Your task to perform on an android device: Add razer nari to the cart on walmart.com Image 0: 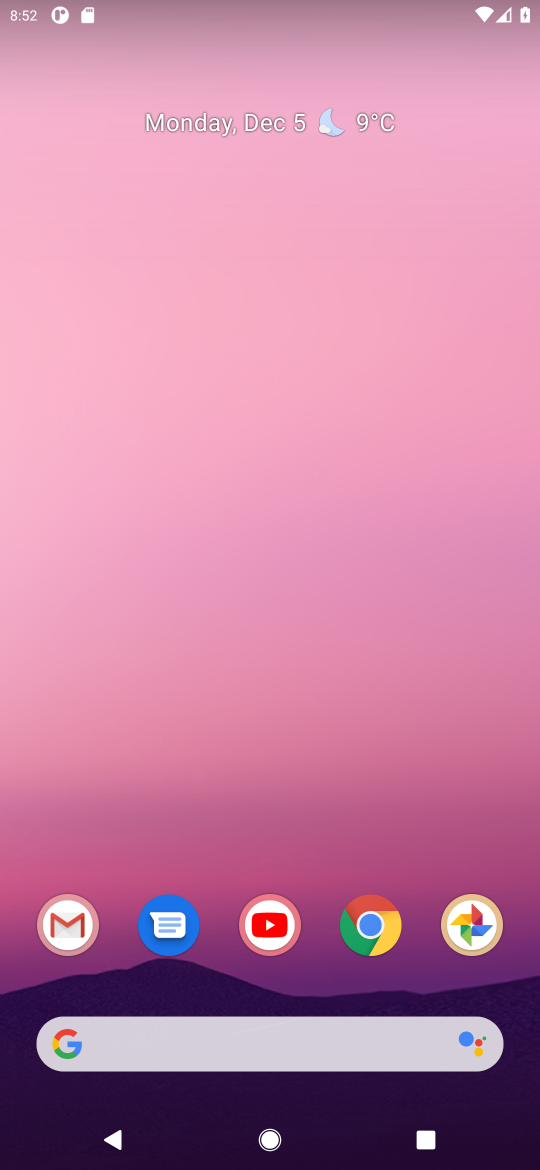
Step 0: click (372, 929)
Your task to perform on an android device: Add razer nari to the cart on walmart.com Image 1: 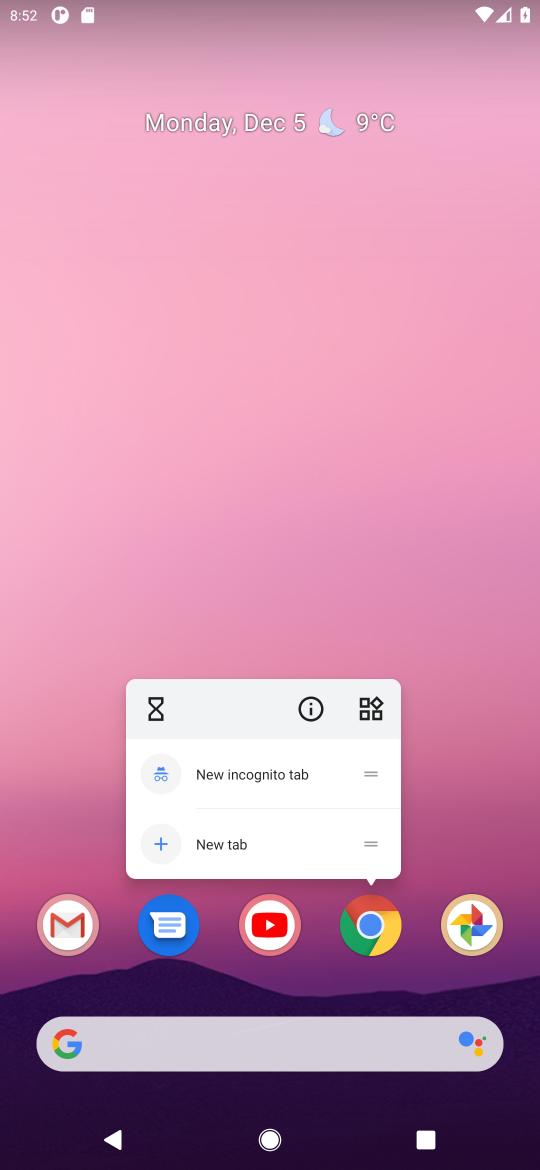
Step 1: click (372, 929)
Your task to perform on an android device: Add razer nari to the cart on walmart.com Image 2: 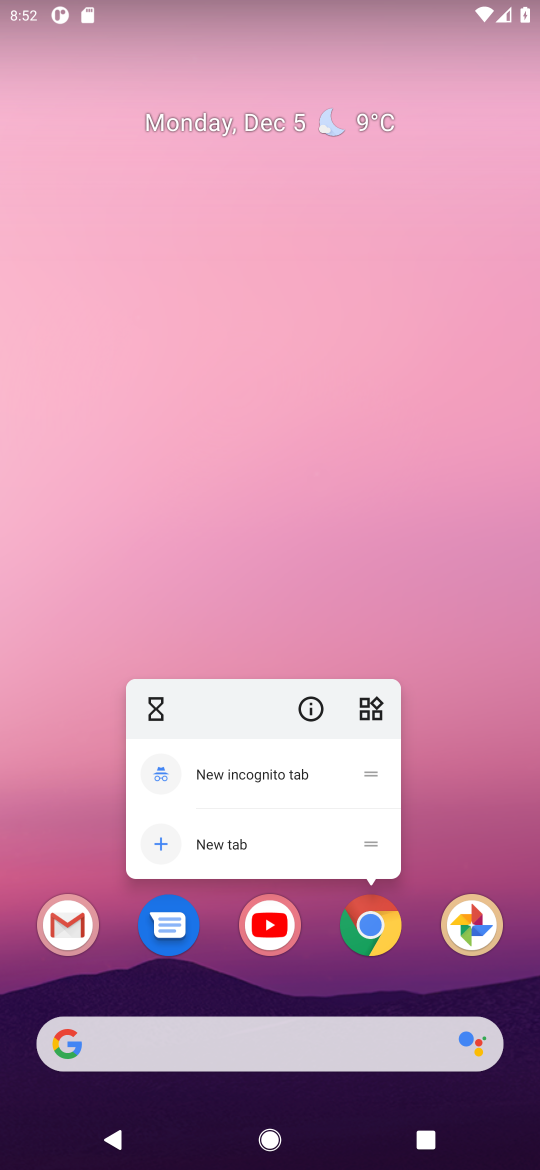
Step 2: click (372, 929)
Your task to perform on an android device: Add razer nari to the cart on walmart.com Image 3: 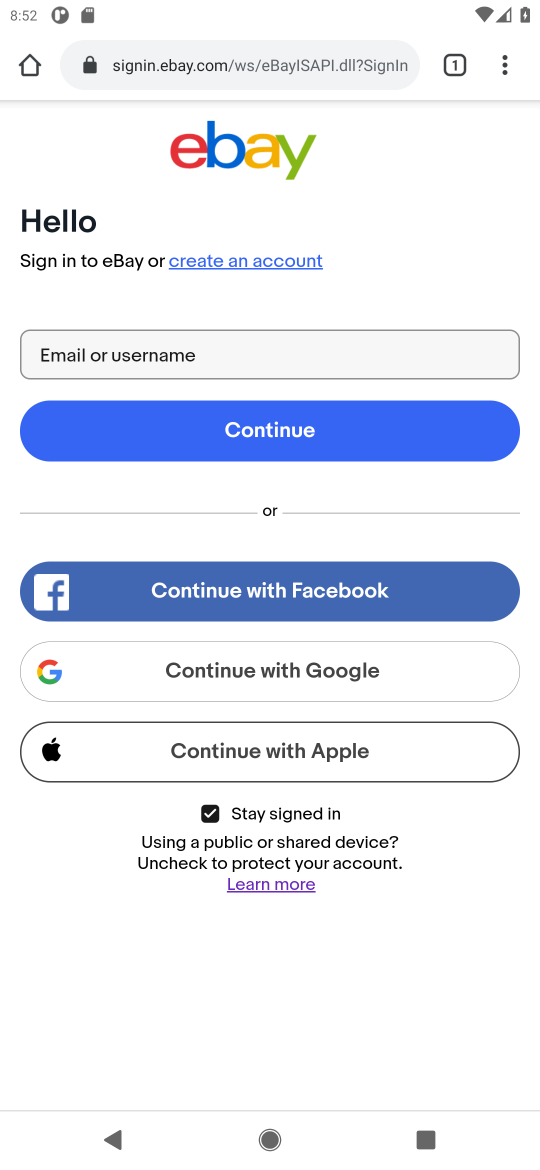
Step 3: click (243, 58)
Your task to perform on an android device: Add razer nari to the cart on walmart.com Image 4: 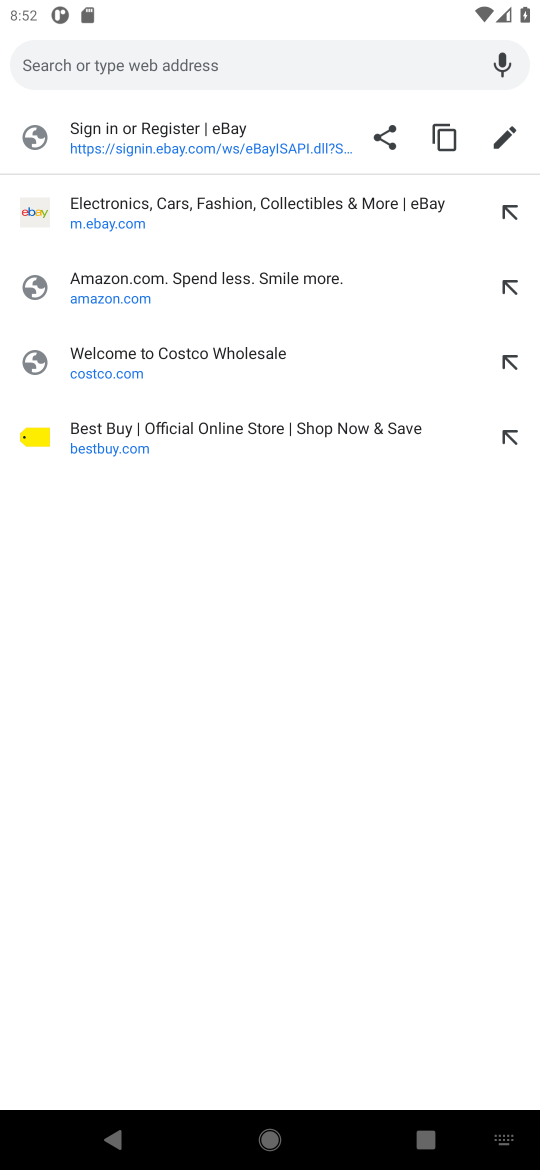
Step 4: type "walmart.com"
Your task to perform on an android device: Add razer nari to the cart on walmart.com Image 5: 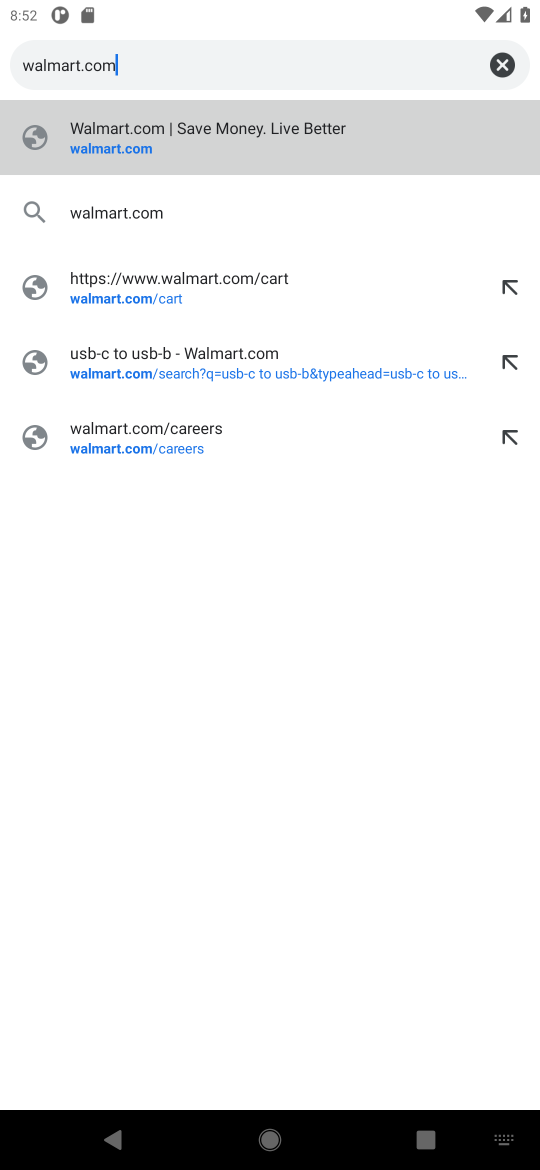
Step 5: click (107, 152)
Your task to perform on an android device: Add razer nari to the cart on walmart.com Image 6: 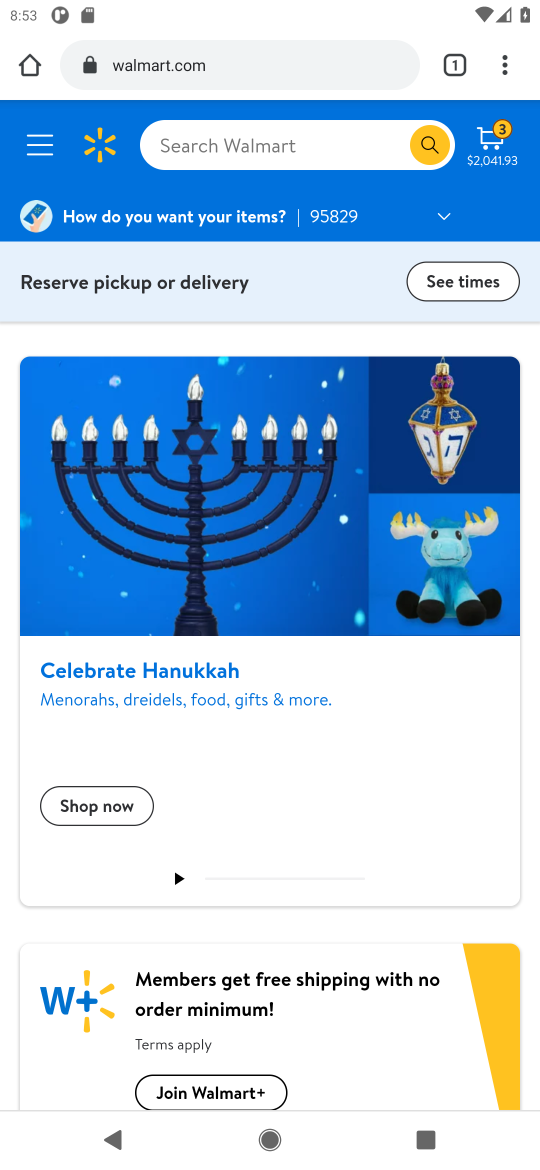
Step 6: click (248, 157)
Your task to perform on an android device: Add razer nari to the cart on walmart.com Image 7: 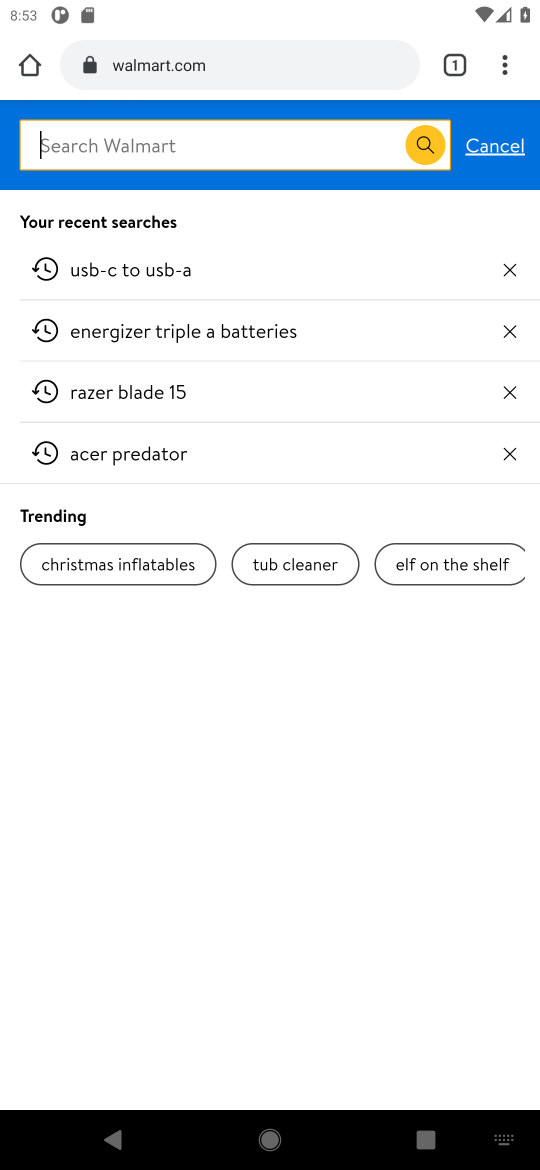
Step 7: type "razer nari"
Your task to perform on an android device: Add razer nari to the cart on walmart.com Image 8: 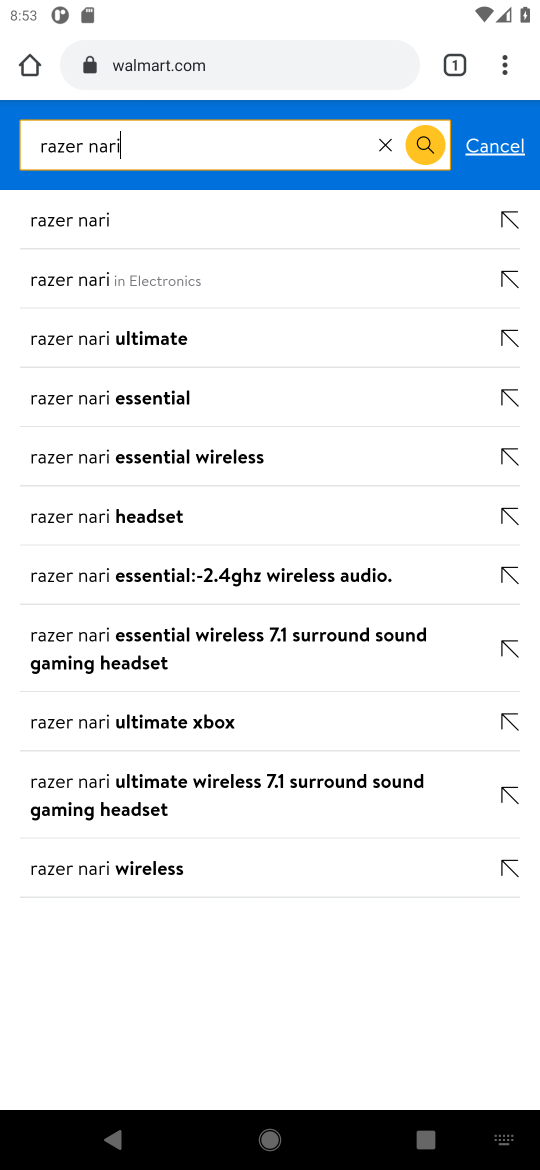
Step 8: click (92, 226)
Your task to perform on an android device: Add razer nari to the cart on walmart.com Image 9: 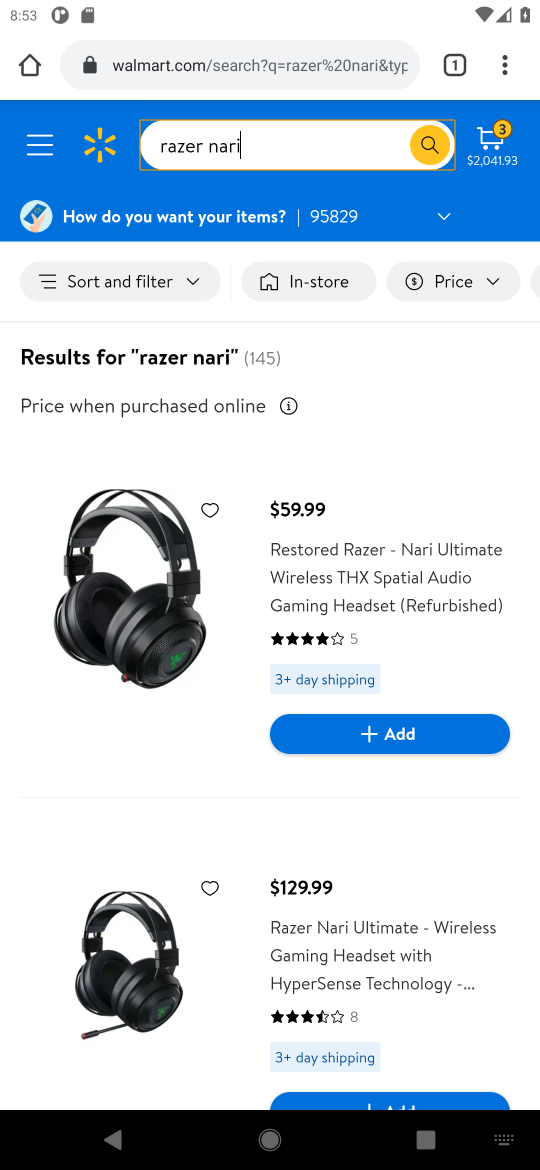
Step 9: drag from (199, 769) to (201, 298)
Your task to perform on an android device: Add razer nari to the cart on walmart.com Image 10: 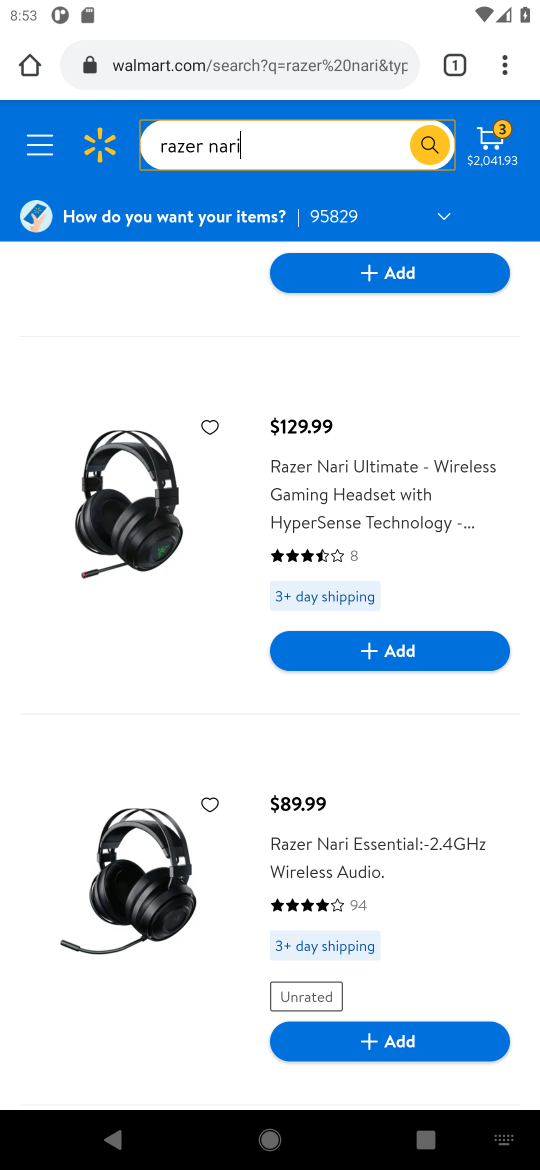
Step 10: click (365, 660)
Your task to perform on an android device: Add razer nari to the cart on walmart.com Image 11: 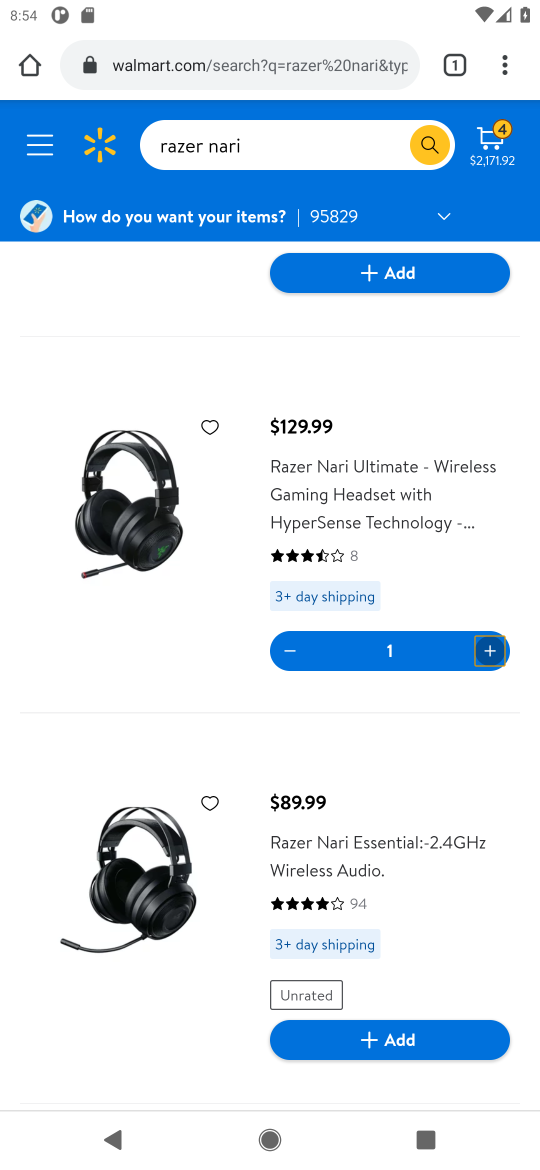
Step 11: task complete